Your task to perform on an android device: Find coffee shops on Maps Image 0: 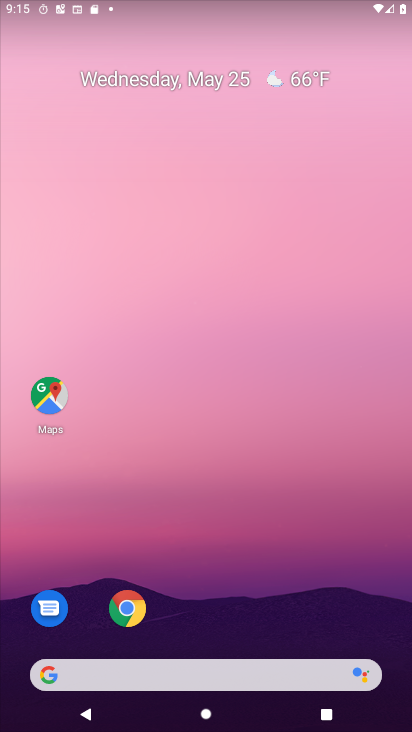
Step 0: drag from (221, 723) to (182, 188)
Your task to perform on an android device: Find coffee shops on Maps Image 1: 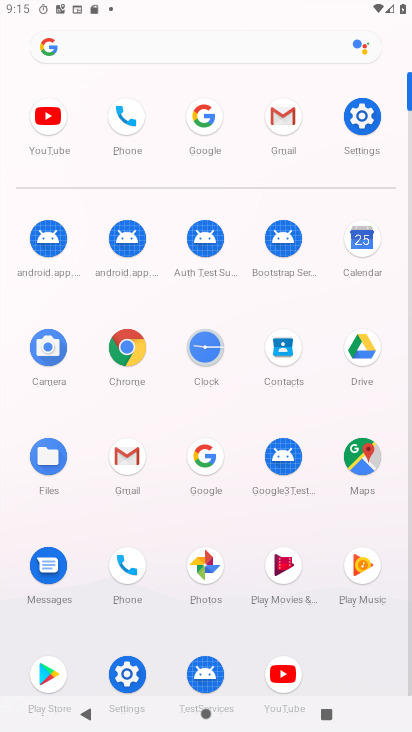
Step 1: click (363, 457)
Your task to perform on an android device: Find coffee shops on Maps Image 2: 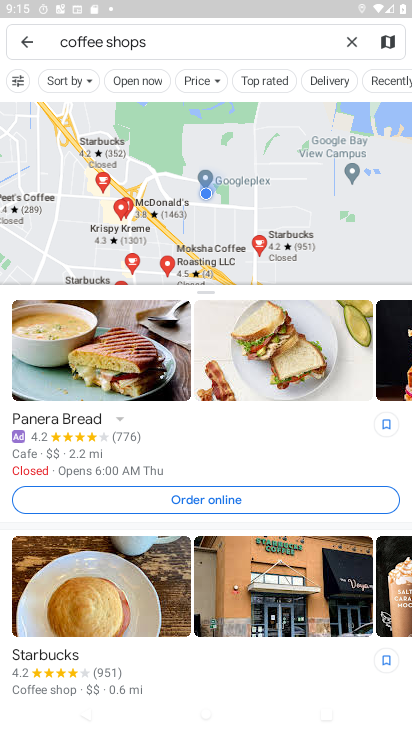
Step 2: task complete